Your task to perform on an android device: snooze an email in the gmail app Image 0: 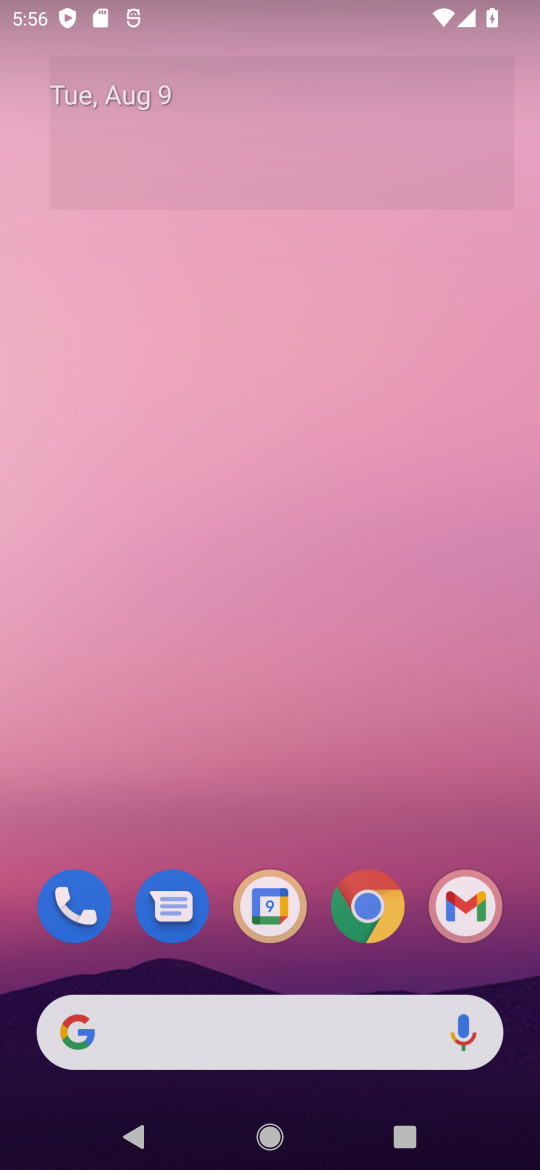
Step 0: press home button
Your task to perform on an android device: snooze an email in the gmail app Image 1: 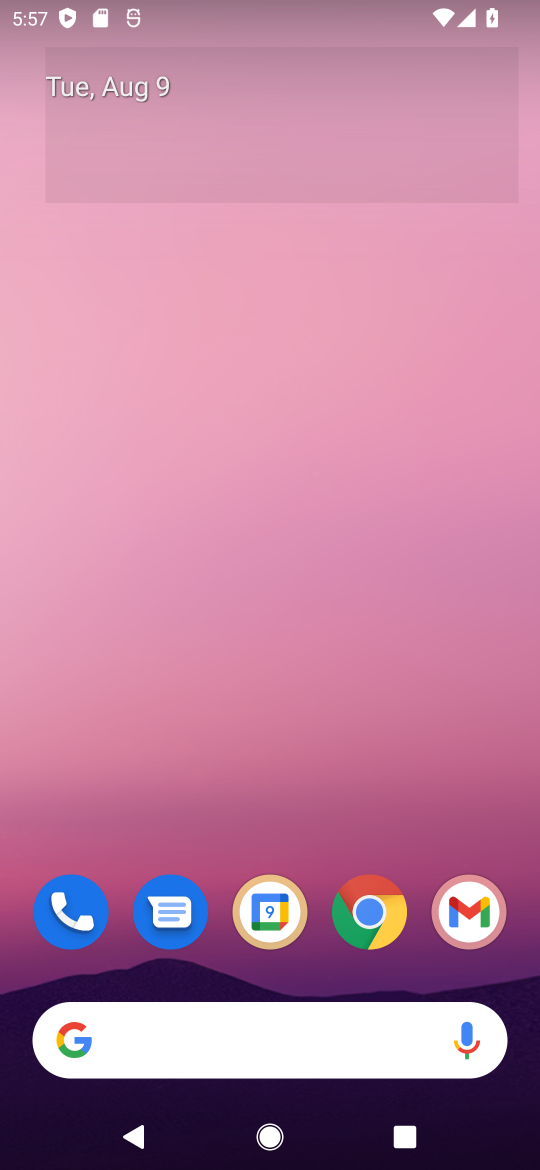
Step 1: click (455, 927)
Your task to perform on an android device: snooze an email in the gmail app Image 2: 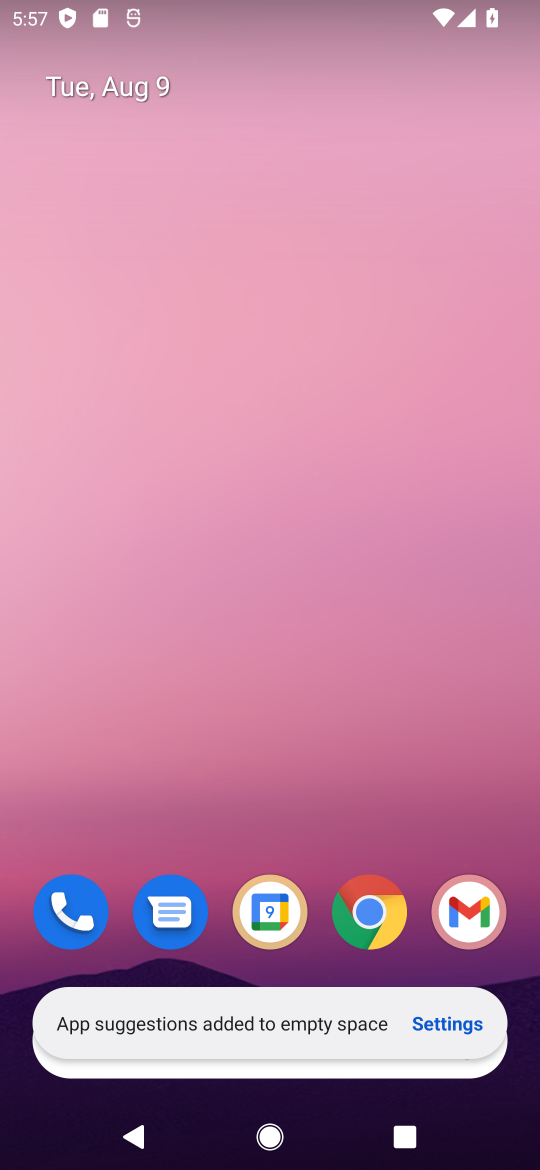
Step 2: click (455, 927)
Your task to perform on an android device: snooze an email in the gmail app Image 3: 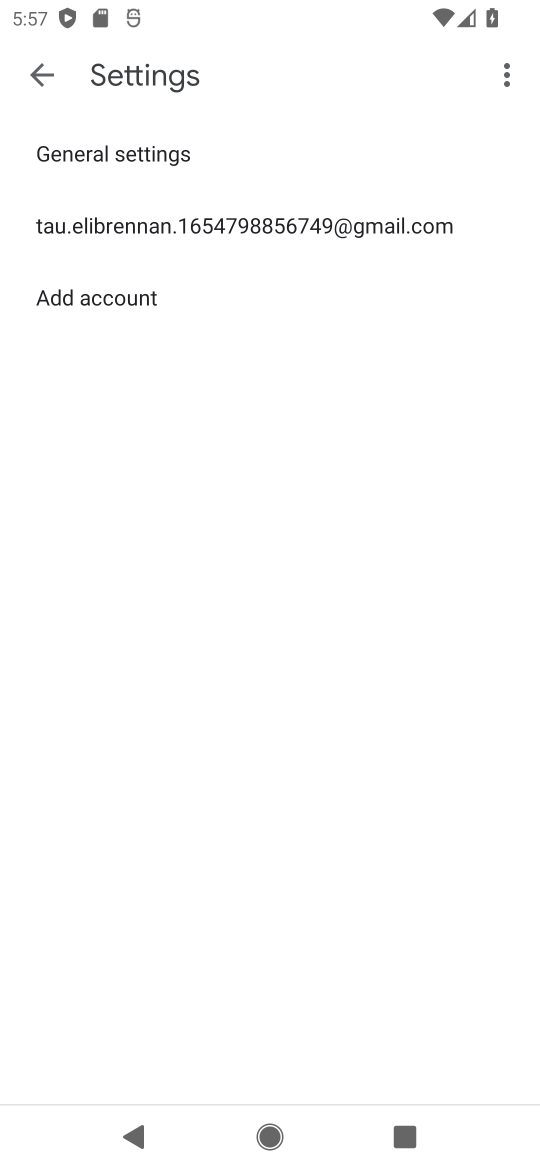
Step 3: click (43, 69)
Your task to perform on an android device: snooze an email in the gmail app Image 4: 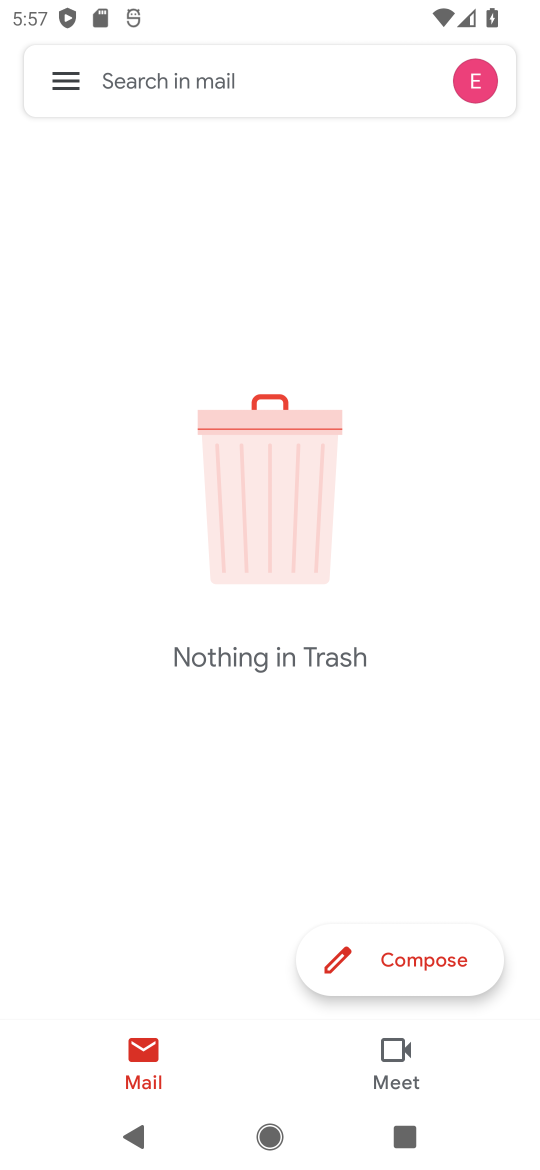
Step 4: click (86, 77)
Your task to perform on an android device: snooze an email in the gmail app Image 5: 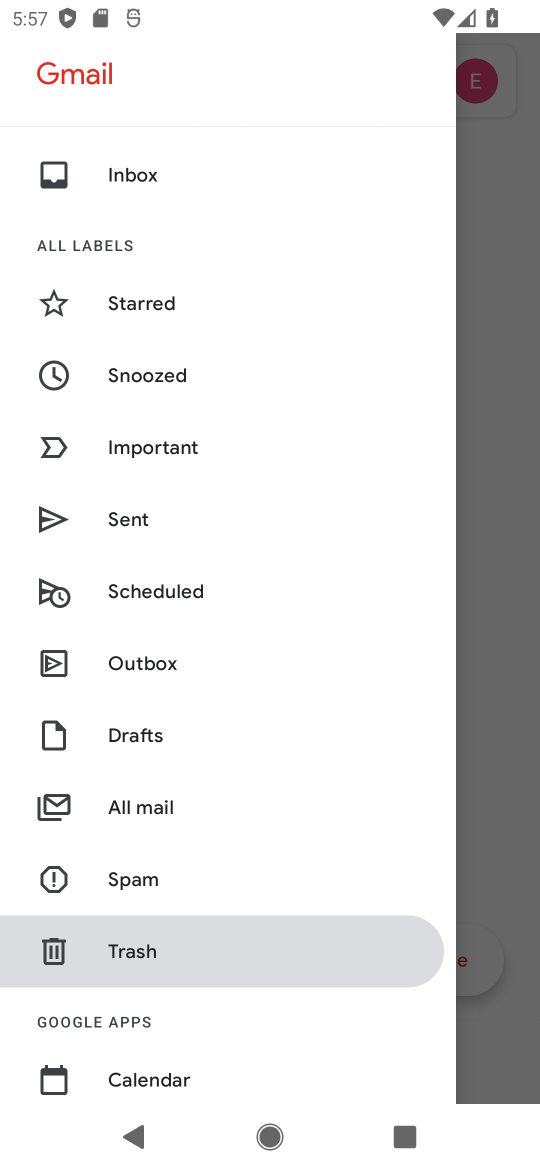
Step 5: click (166, 805)
Your task to perform on an android device: snooze an email in the gmail app Image 6: 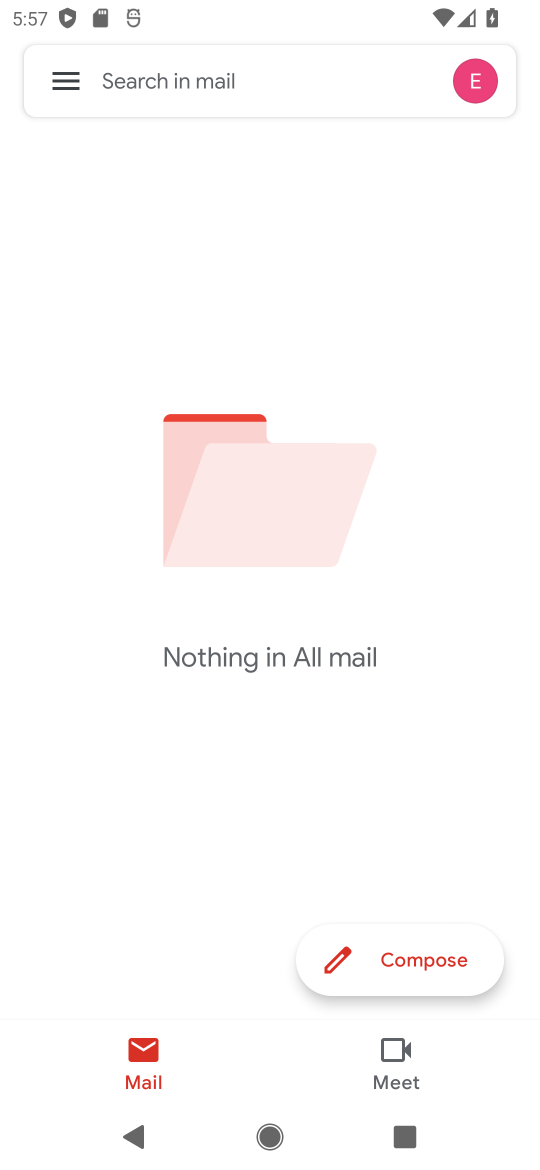
Step 6: task complete